Your task to perform on an android device: turn off notifications settings in the gmail app Image 0: 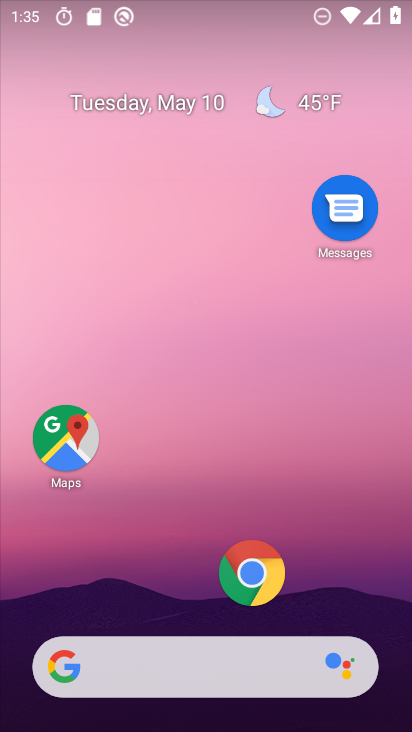
Step 0: drag from (196, 592) to (215, 185)
Your task to perform on an android device: turn off notifications settings in the gmail app Image 1: 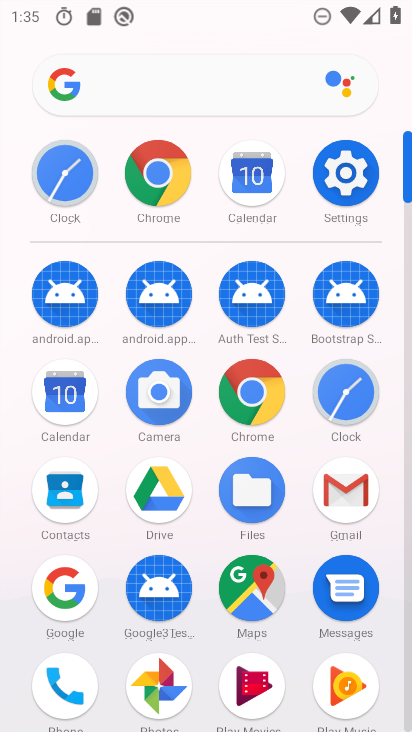
Step 1: click (338, 500)
Your task to perform on an android device: turn off notifications settings in the gmail app Image 2: 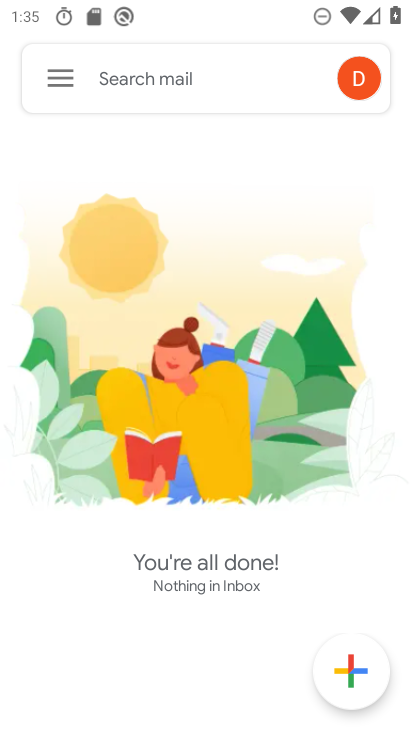
Step 2: click (57, 82)
Your task to perform on an android device: turn off notifications settings in the gmail app Image 3: 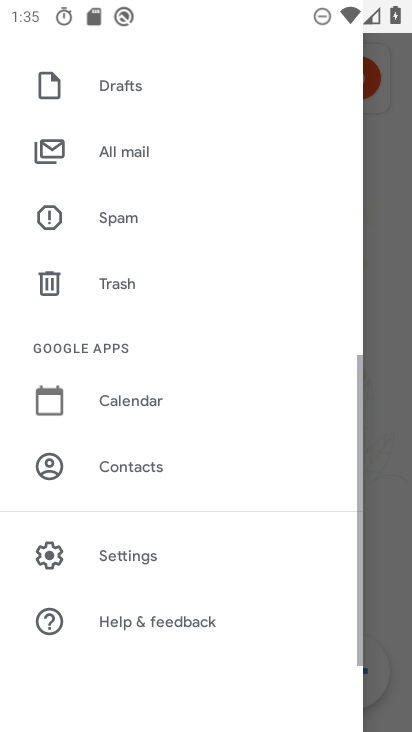
Step 3: click (155, 558)
Your task to perform on an android device: turn off notifications settings in the gmail app Image 4: 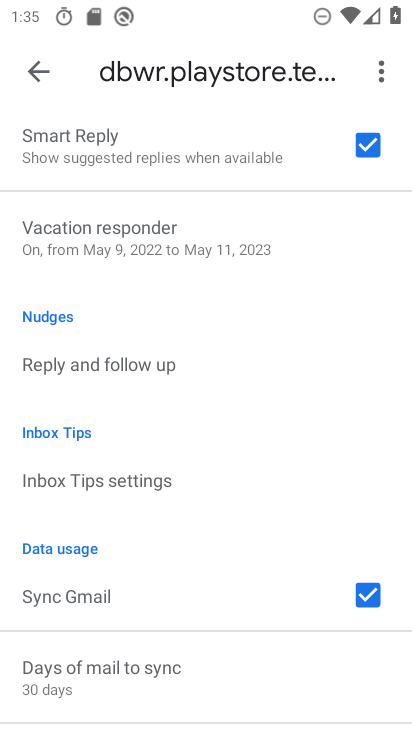
Step 4: drag from (211, 244) to (180, 688)
Your task to perform on an android device: turn off notifications settings in the gmail app Image 5: 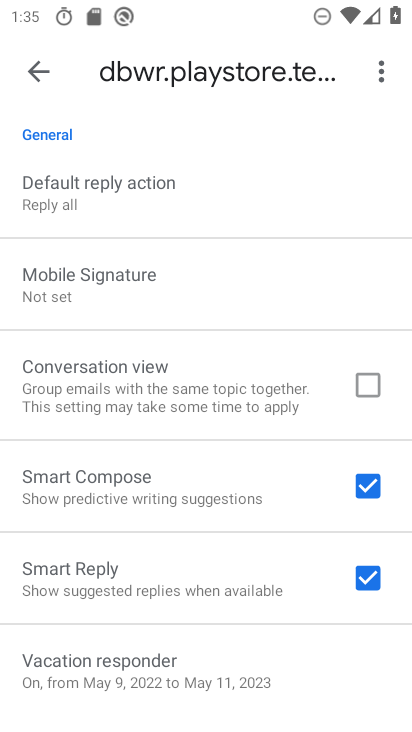
Step 5: drag from (187, 248) to (194, 620)
Your task to perform on an android device: turn off notifications settings in the gmail app Image 6: 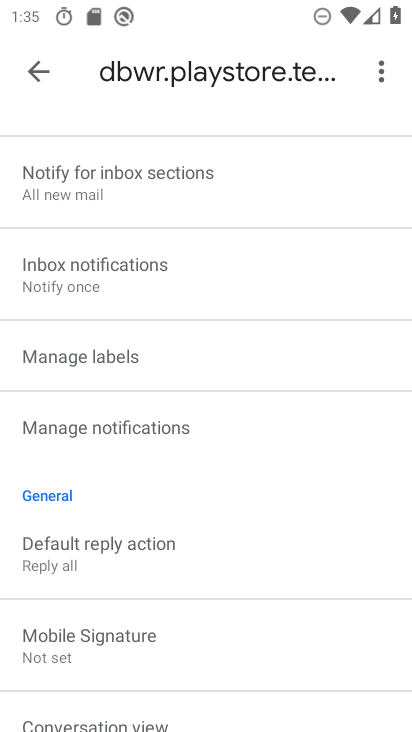
Step 6: click (135, 426)
Your task to perform on an android device: turn off notifications settings in the gmail app Image 7: 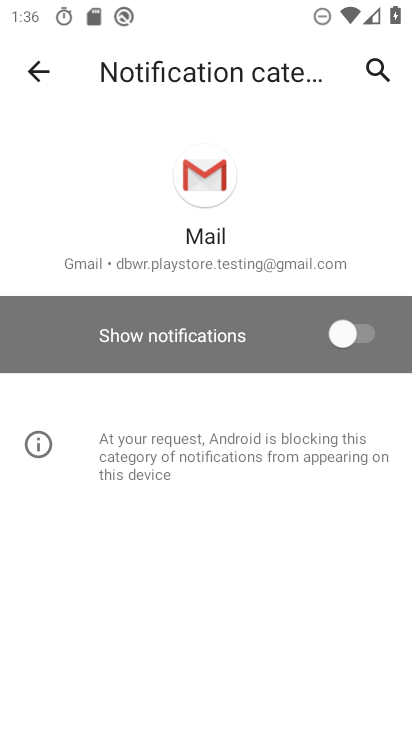
Step 7: task complete